Your task to perform on an android device: change the clock display to digital Image 0: 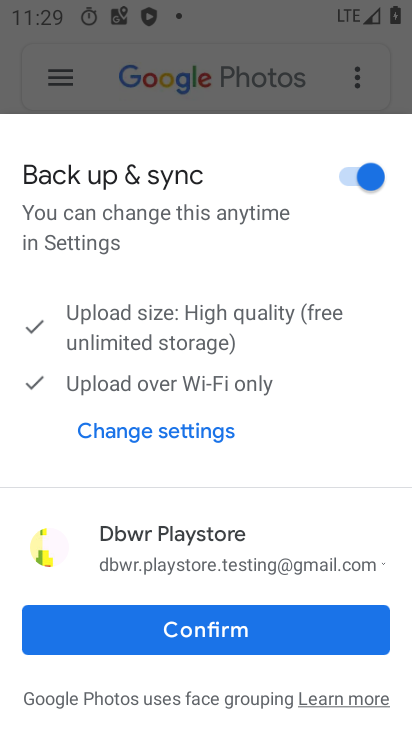
Step 0: press home button
Your task to perform on an android device: change the clock display to digital Image 1: 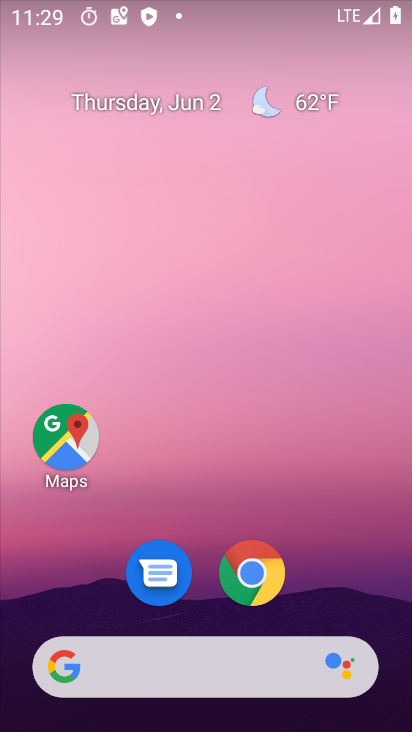
Step 1: drag from (146, 677) to (211, 166)
Your task to perform on an android device: change the clock display to digital Image 2: 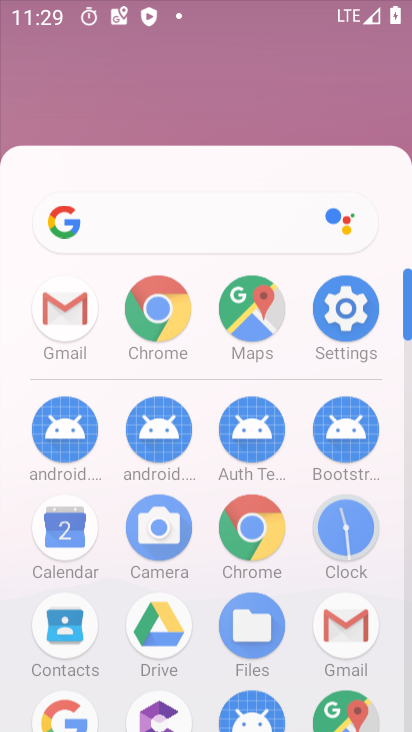
Step 2: click (220, 149)
Your task to perform on an android device: change the clock display to digital Image 3: 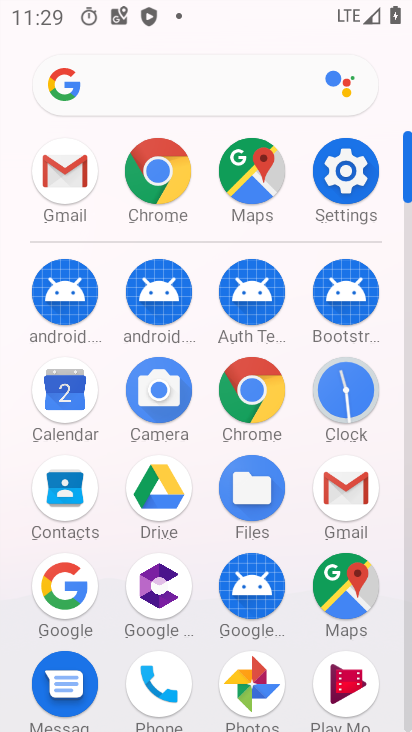
Step 3: click (349, 388)
Your task to perform on an android device: change the clock display to digital Image 4: 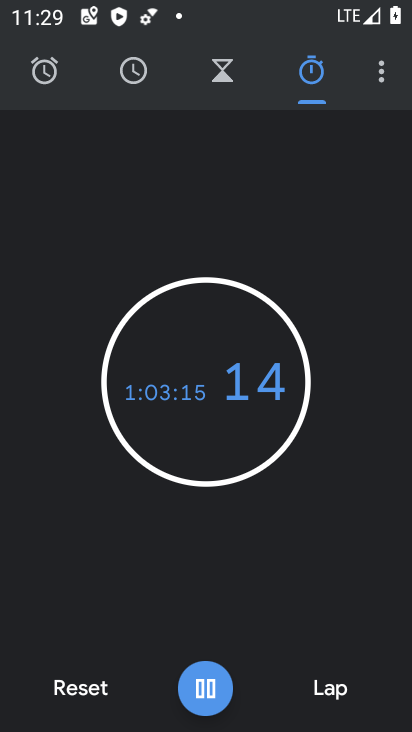
Step 4: click (382, 68)
Your task to perform on an android device: change the clock display to digital Image 5: 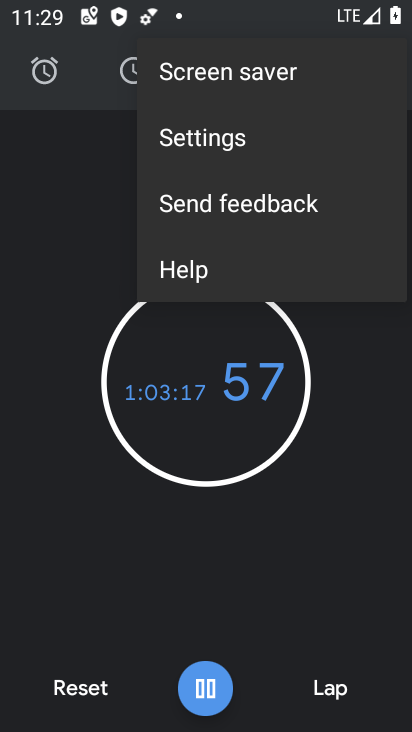
Step 5: click (263, 149)
Your task to perform on an android device: change the clock display to digital Image 6: 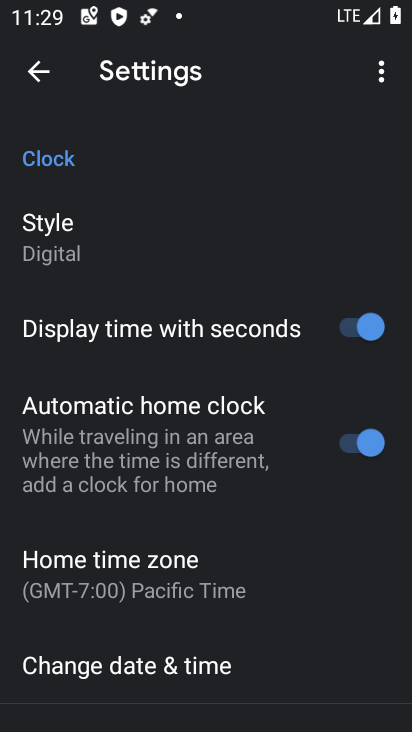
Step 6: task complete